Your task to perform on an android device: toggle notifications settings in the gmail app Image 0: 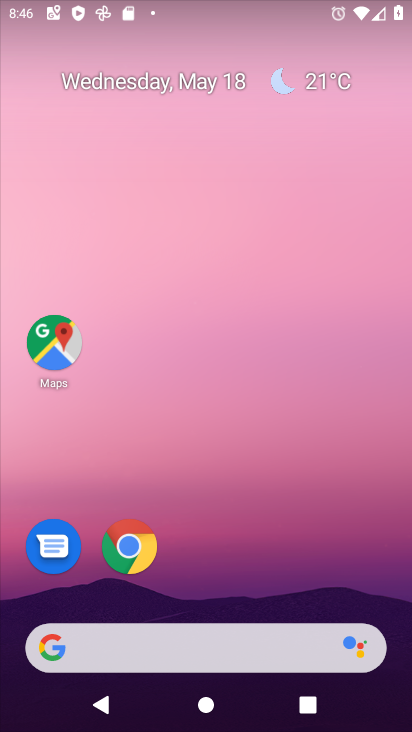
Step 0: drag from (403, 638) to (317, 21)
Your task to perform on an android device: toggle notifications settings in the gmail app Image 1: 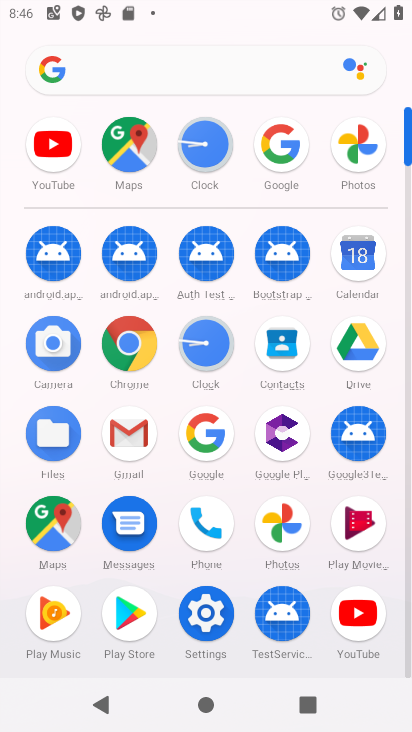
Step 1: click (116, 430)
Your task to perform on an android device: toggle notifications settings in the gmail app Image 2: 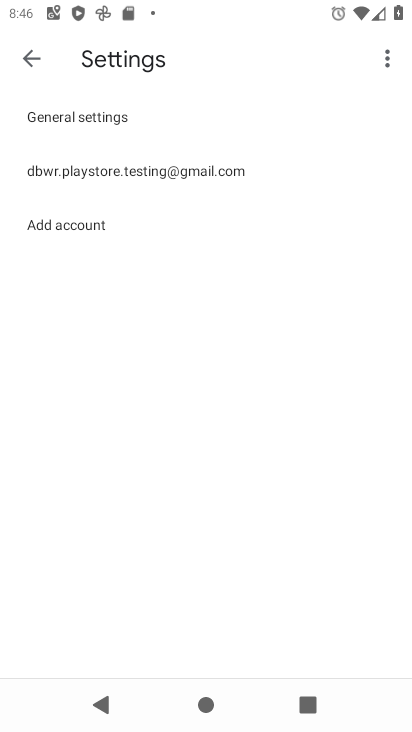
Step 2: click (113, 167)
Your task to perform on an android device: toggle notifications settings in the gmail app Image 3: 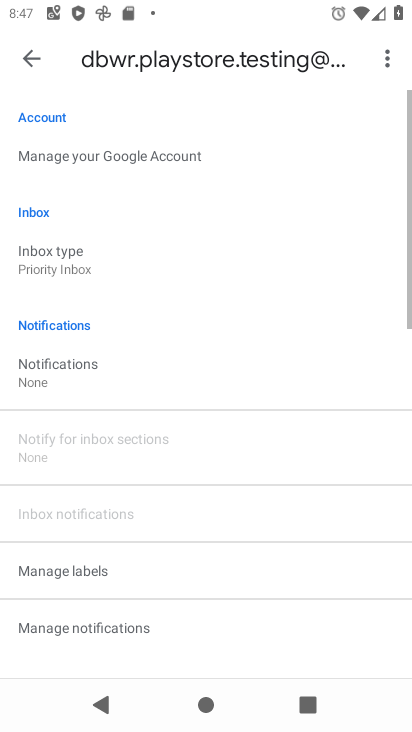
Step 3: click (96, 391)
Your task to perform on an android device: toggle notifications settings in the gmail app Image 4: 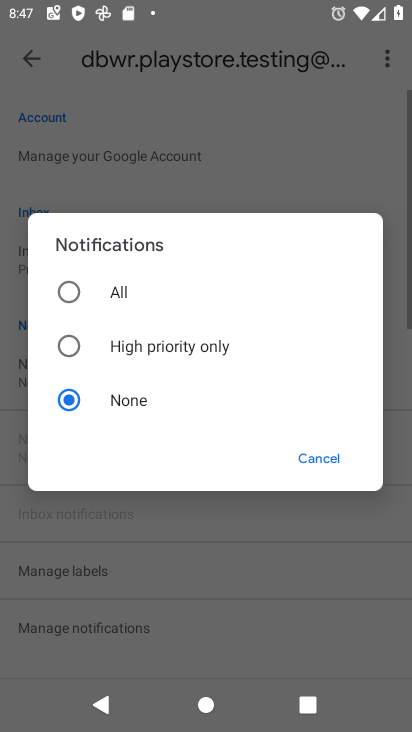
Step 4: click (115, 285)
Your task to perform on an android device: toggle notifications settings in the gmail app Image 5: 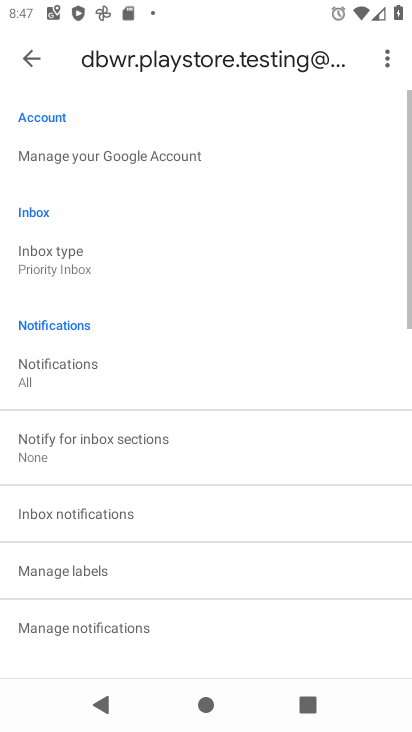
Step 5: task complete